Your task to perform on an android device: toggle translation in the chrome app Image 0: 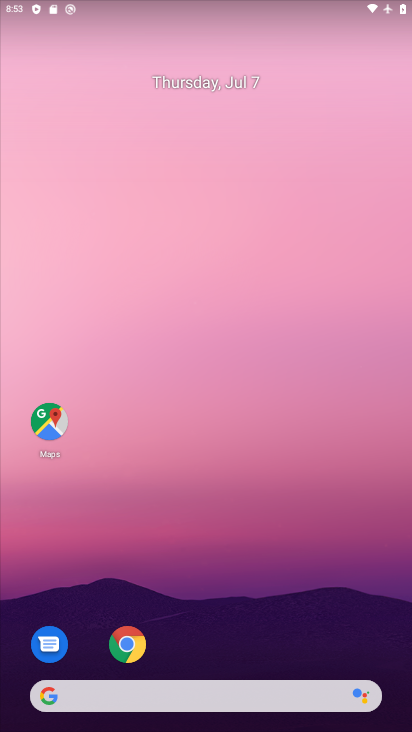
Step 0: drag from (225, 386) to (224, 192)
Your task to perform on an android device: toggle translation in the chrome app Image 1: 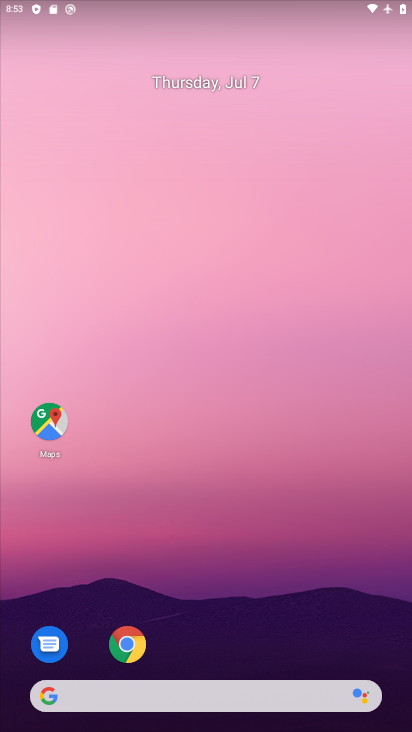
Step 1: drag from (274, 722) to (276, 159)
Your task to perform on an android device: toggle translation in the chrome app Image 2: 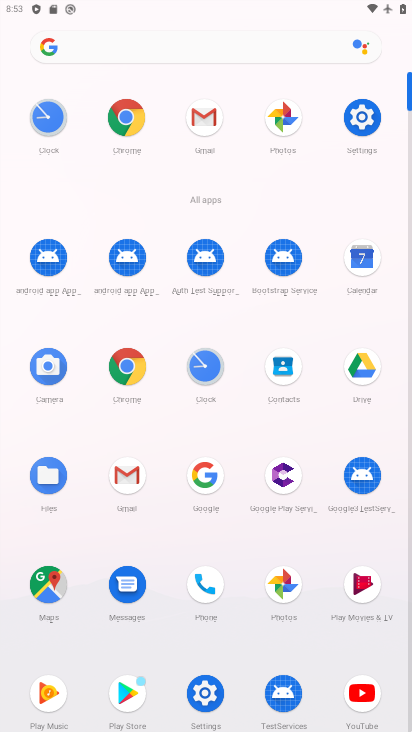
Step 2: click (133, 346)
Your task to perform on an android device: toggle translation in the chrome app Image 3: 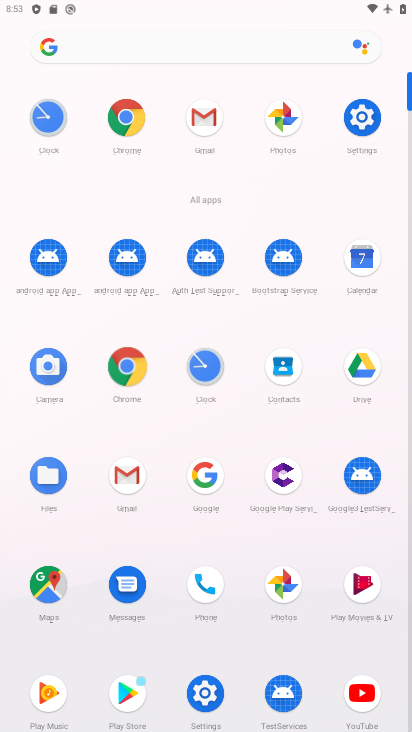
Step 3: click (128, 349)
Your task to perform on an android device: toggle translation in the chrome app Image 4: 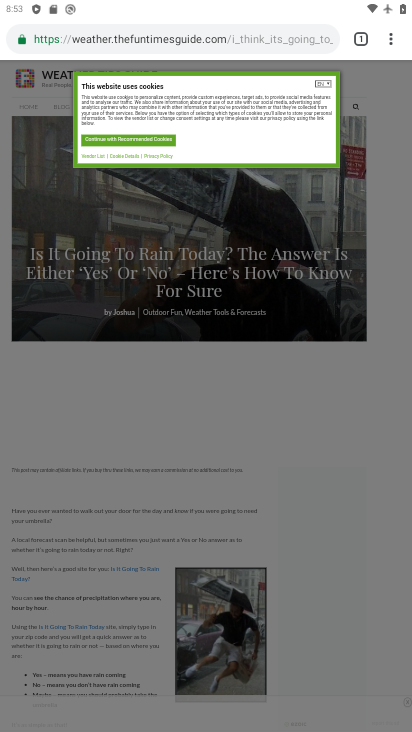
Step 4: click (379, 118)
Your task to perform on an android device: toggle translation in the chrome app Image 5: 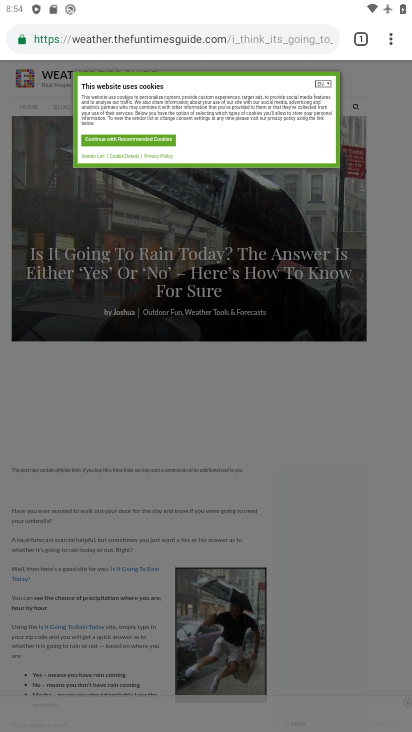
Step 5: click (379, 118)
Your task to perform on an android device: toggle translation in the chrome app Image 6: 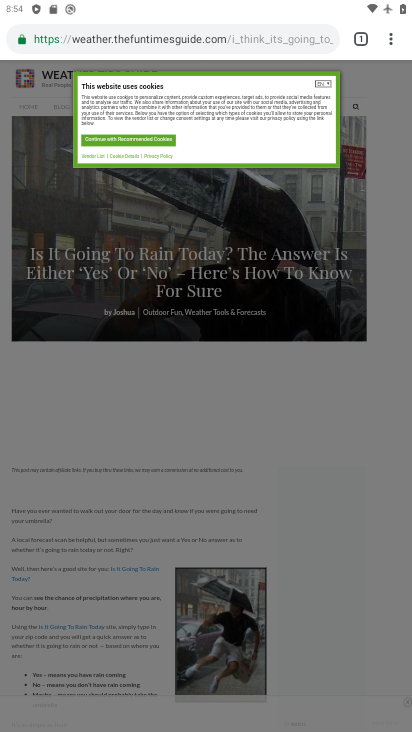
Step 6: press back button
Your task to perform on an android device: toggle translation in the chrome app Image 7: 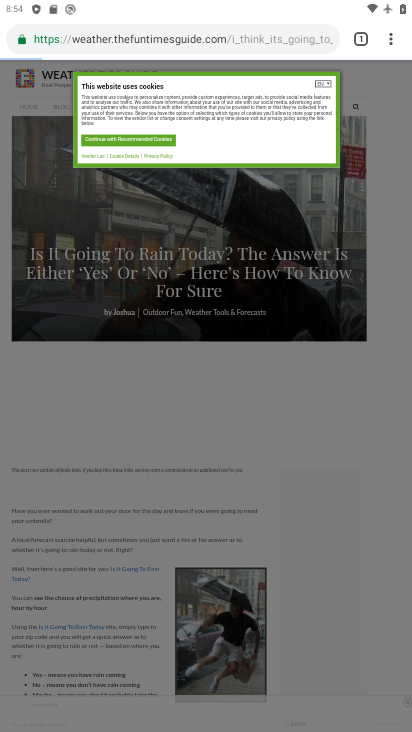
Step 7: press back button
Your task to perform on an android device: toggle translation in the chrome app Image 8: 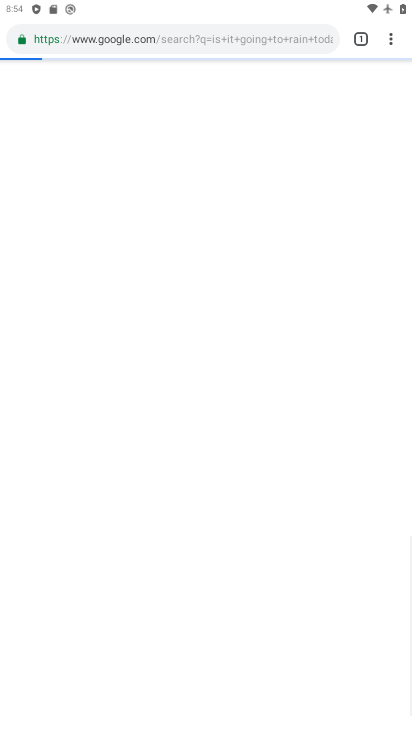
Step 8: click (348, 110)
Your task to perform on an android device: toggle translation in the chrome app Image 9: 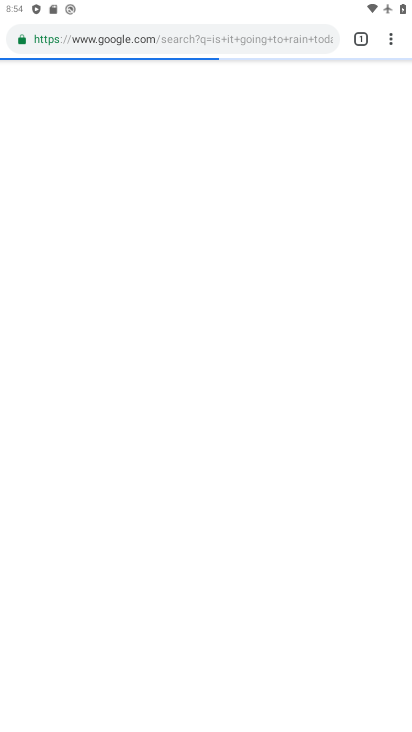
Step 9: click (359, 113)
Your task to perform on an android device: toggle translation in the chrome app Image 10: 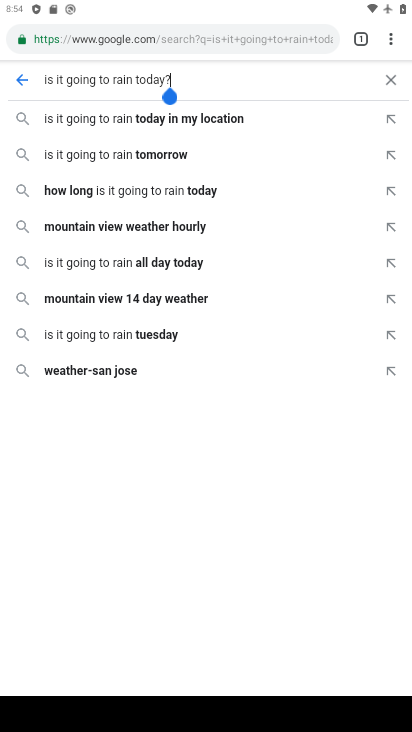
Step 10: click (22, 83)
Your task to perform on an android device: toggle translation in the chrome app Image 11: 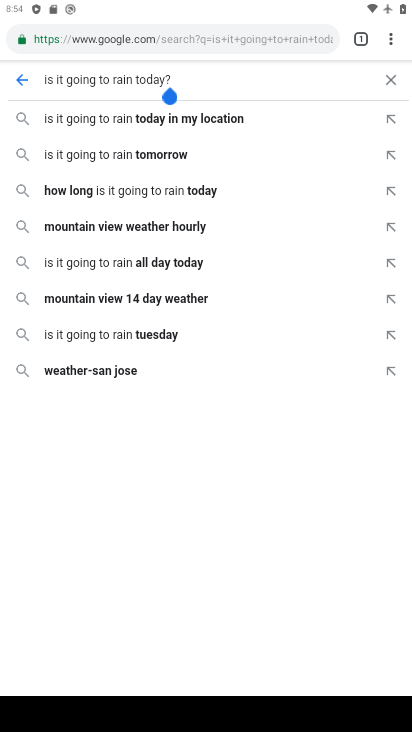
Step 11: click (32, 80)
Your task to perform on an android device: toggle translation in the chrome app Image 12: 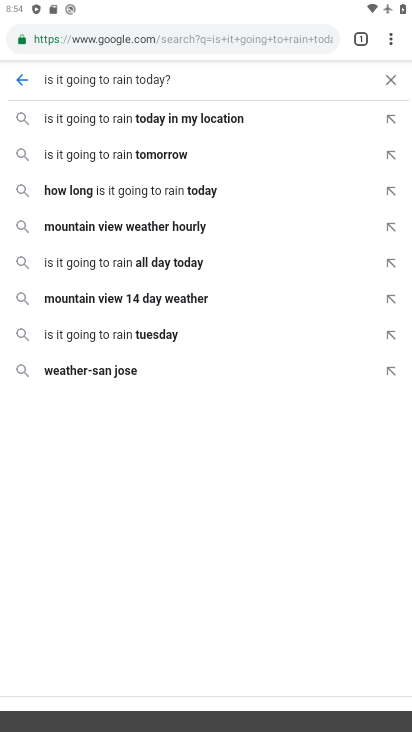
Step 12: click (42, 80)
Your task to perform on an android device: toggle translation in the chrome app Image 13: 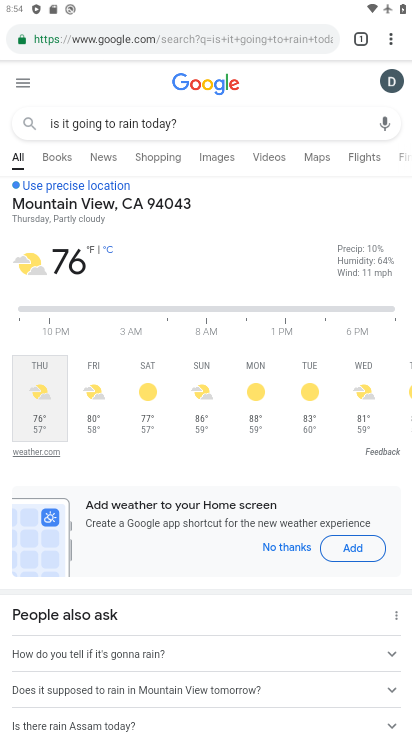
Step 13: click (182, 121)
Your task to perform on an android device: toggle translation in the chrome app Image 14: 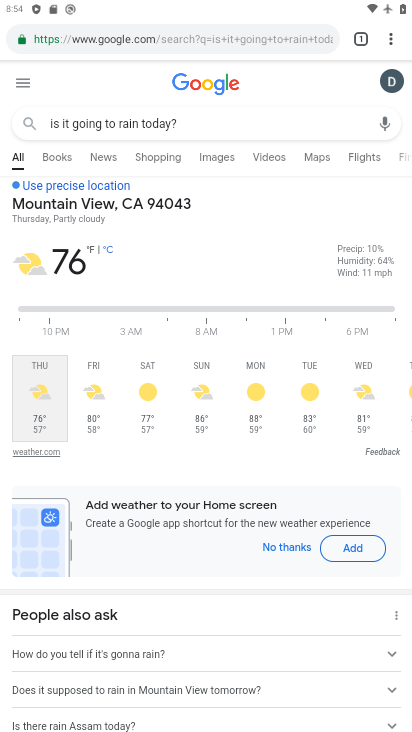
Step 14: click (175, 122)
Your task to perform on an android device: toggle translation in the chrome app Image 15: 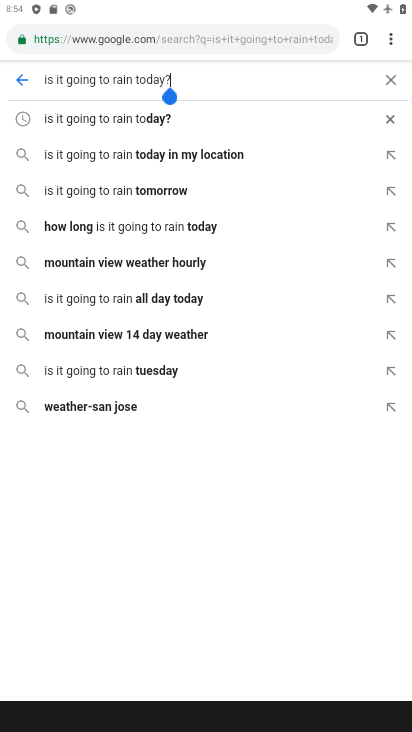
Step 15: click (174, 121)
Your task to perform on an android device: toggle translation in the chrome app Image 16: 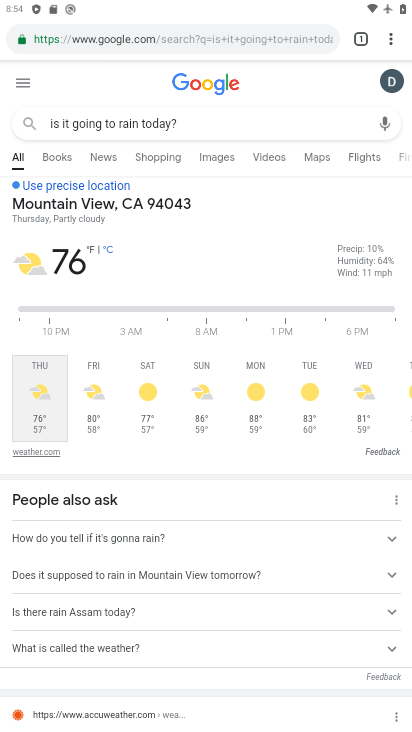
Step 16: click (167, 126)
Your task to perform on an android device: toggle translation in the chrome app Image 17: 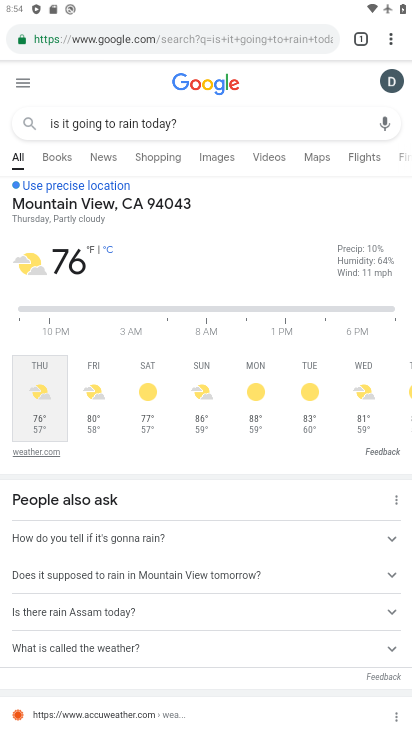
Step 17: click (170, 126)
Your task to perform on an android device: toggle translation in the chrome app Image 18: 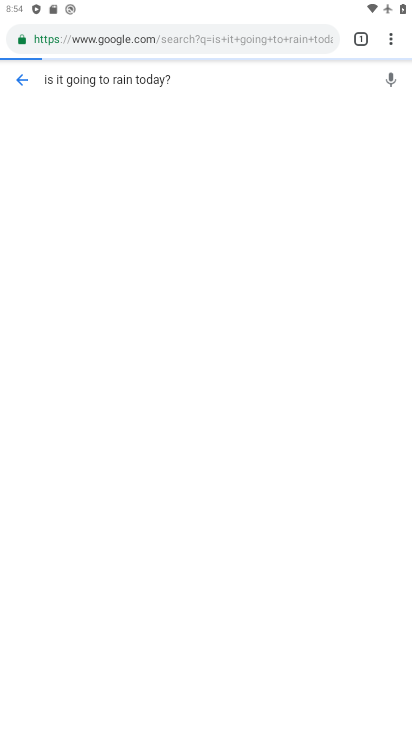
Step 18: press back button
Your task to perform on an android device: toggle translation in the chrome app Image 19: 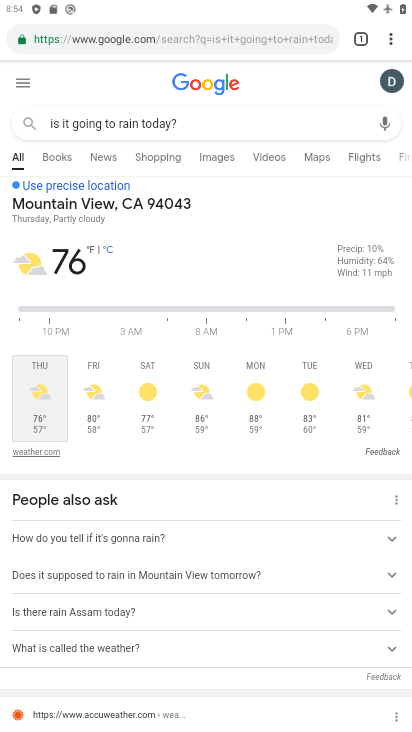
Step 19: press home button
Your task to perform on an android device: toggle translation in the chrome app Image 20: 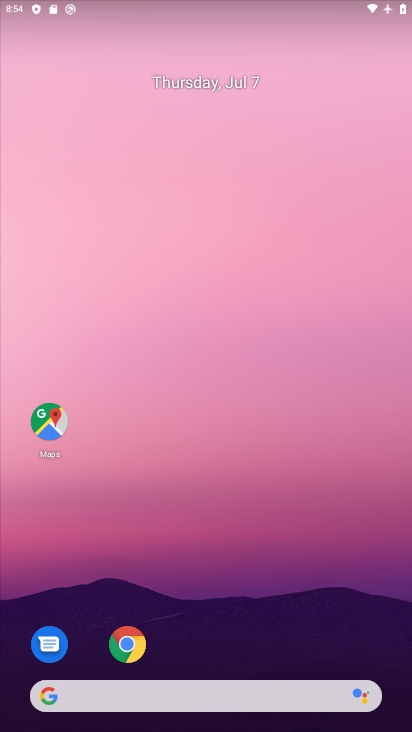
Step 20: drag from (260, 258) to (288, 5)
Your task to perform on an android device: toggle translation in the chrome app Image 21: 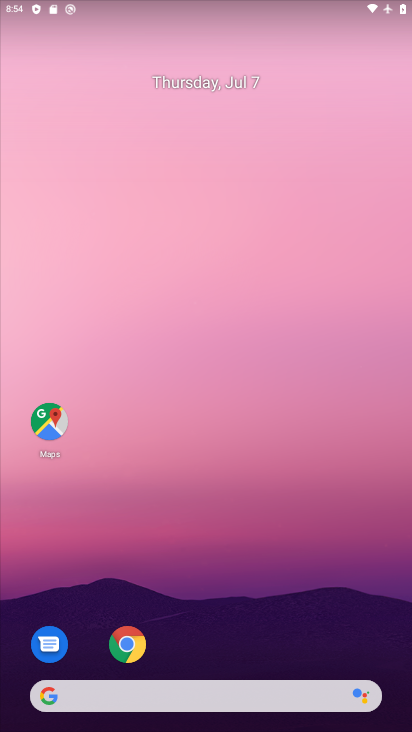
Step 21: drag from (224, 286) to (259, 17)
Your task to perform on an android device: toggle translation in the chrome app Image 22: 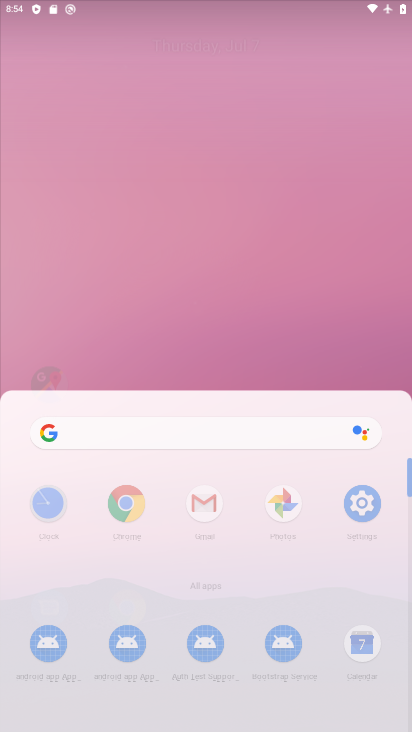
Step 22: drag from (233, 564) to (215, 47)
Your task to perform on an android device: toggle translation in the chrome app Image 23: 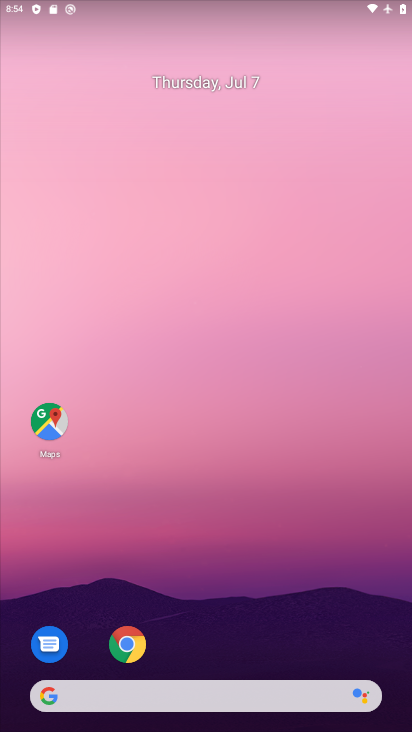
Step 23: drag from (255, 615) to (194, 71)
Your task to perform on an android device: toggle translation in the chrome app Image 24: 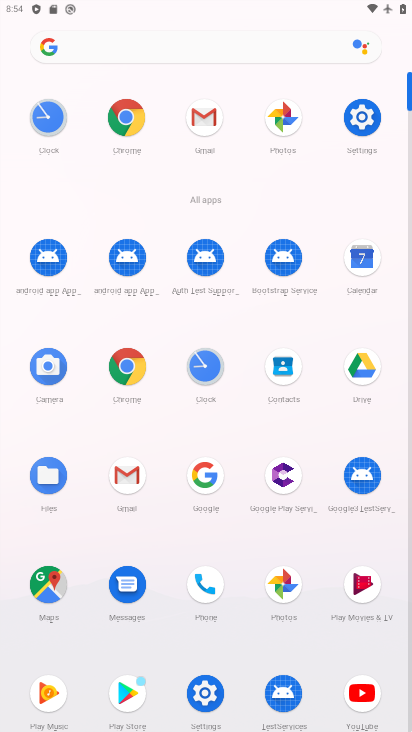
Step 24: click (120, 110)
Your task to perform on an android device: toggle translation in the chrome app Image 25: 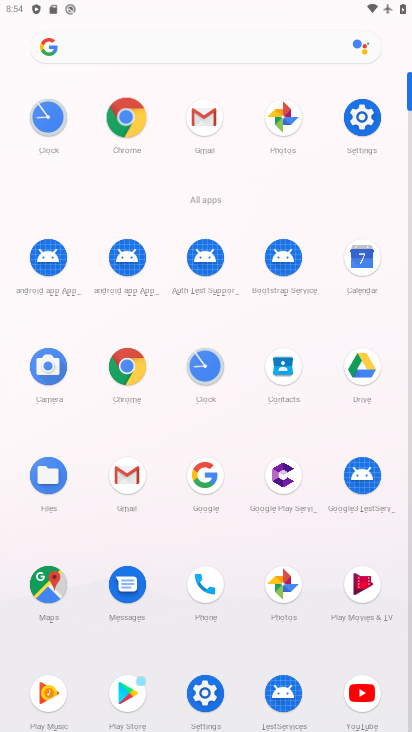
Step 25: click (124, 108)
Your task to perform on an android device: toggle translation in the chrome app Image 26: 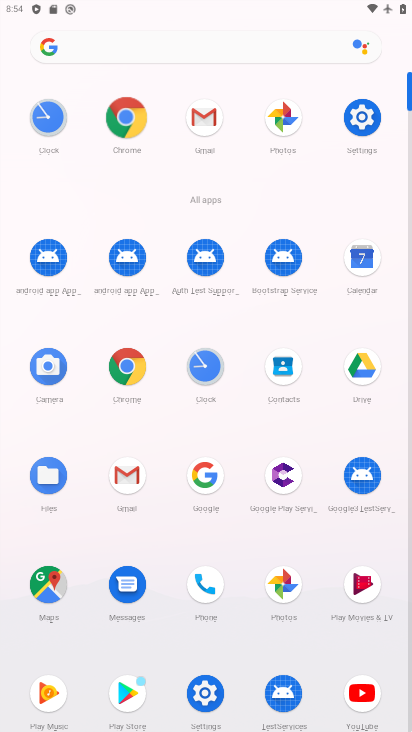
Step 26: click (128, 110)
Your task to perform on an android device: toggle translation in the chrome app Image 27: 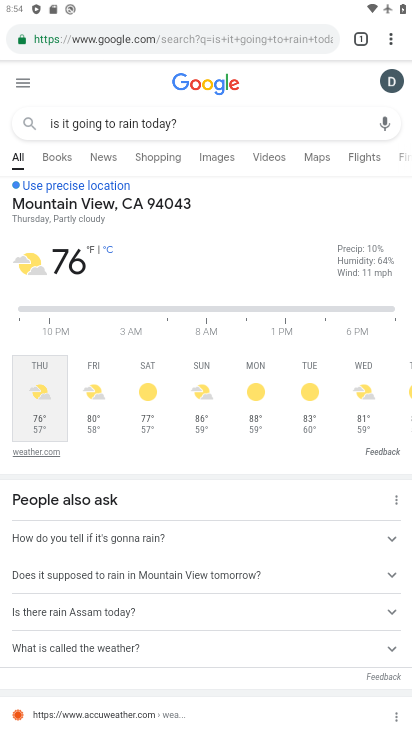
Step 27: drag from (386, 39) to (249, 480)
Your task to perform on an android device: toggle translation in the chrome app Image 28: 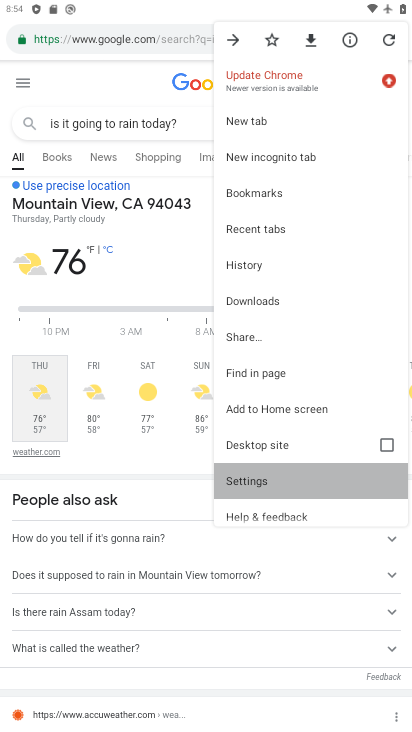
Step 28: click (249, 480)
Your task to perform on an android device: toggle translation in the chrome app Image 29: 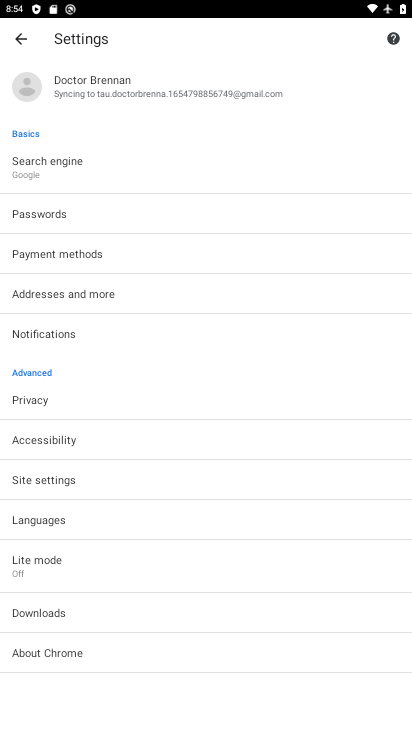
Step 29: drag from (138, 618) to (152, 280)
Your task to perform on an android device: toggle translation in the chrome app Image 30: 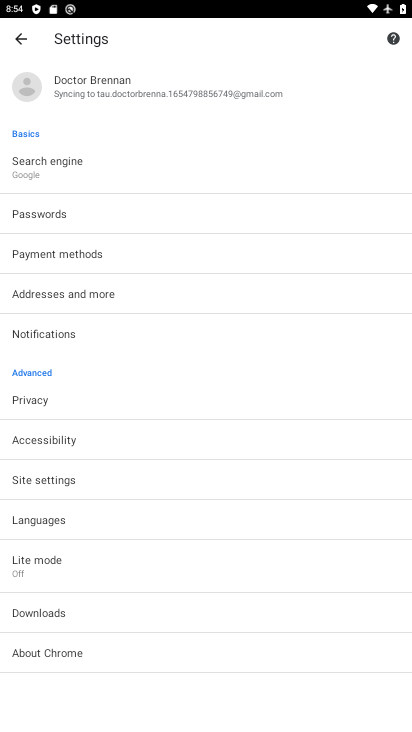
Step 30: click (46, 515)
Your task to perform on an android device: toggle translation in the chrome app Image 31: 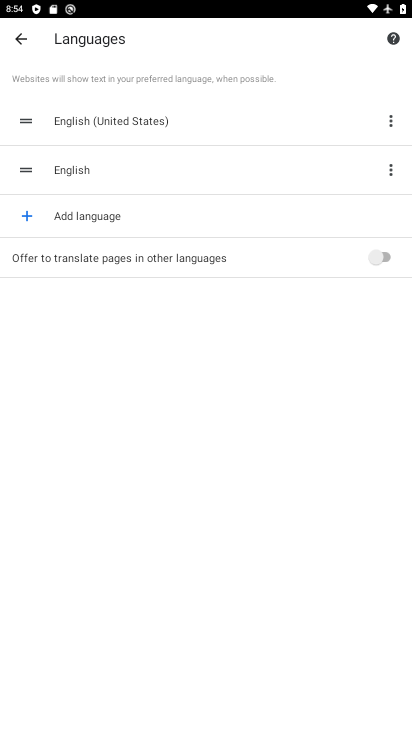
Step 31: click (370, 258)
Your task to perform on an android device: toggle translation in the chrome app Image 32: 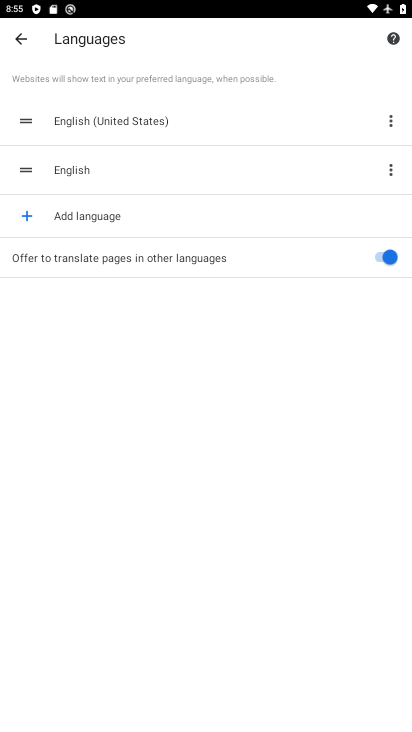
Step 32: task complete